Your task to perform on an android device: turn off javascript in the chrome app Image 0: 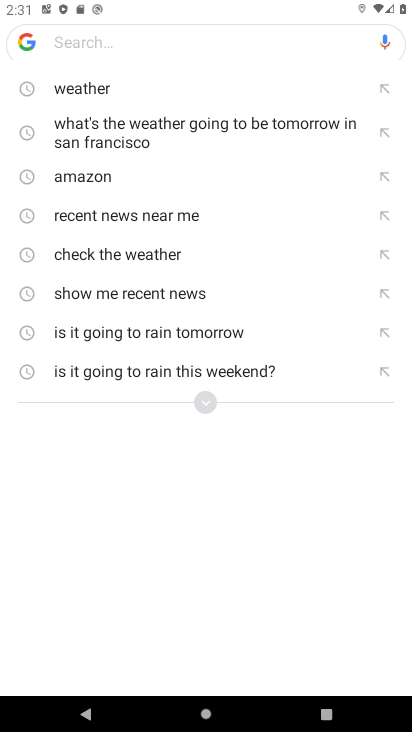
Step 0: press home button
Your task to perform on an android device: turn off javascript in the chrome app Image 1: 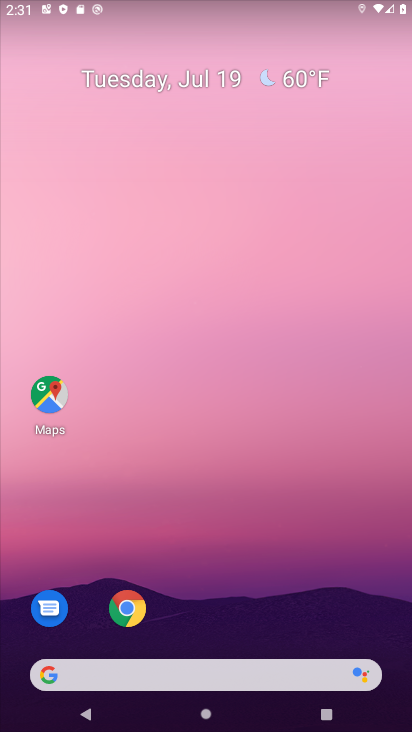
Step 1: drag from (307, 548) to (291, 11)
Your task to perform on an android device: turn off javascript in the chrome app Image 2: 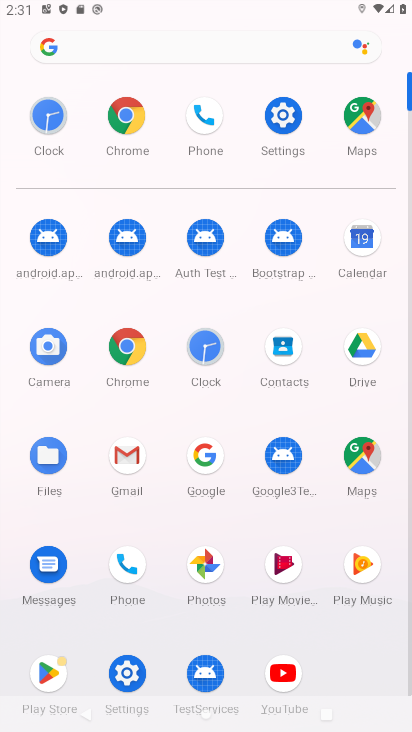
Step 2: click (118, 119)
Your task to perform on an android device: turn off javascript in the chrome app Image 3: 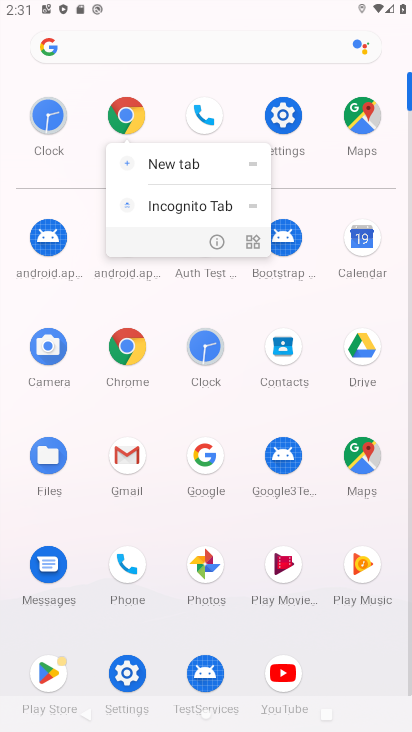
Step 3: click (118, 118)
Your task to perform on an android device: turn off javascript in the chrome app Image 4: 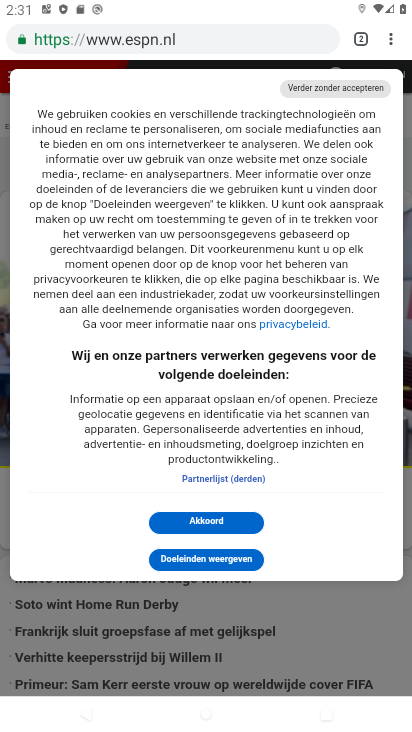
Step 4: drag from (394, 47) to (289, 474)
Your task to perform on an android device: turn off javascript in the chrome app Image 5: 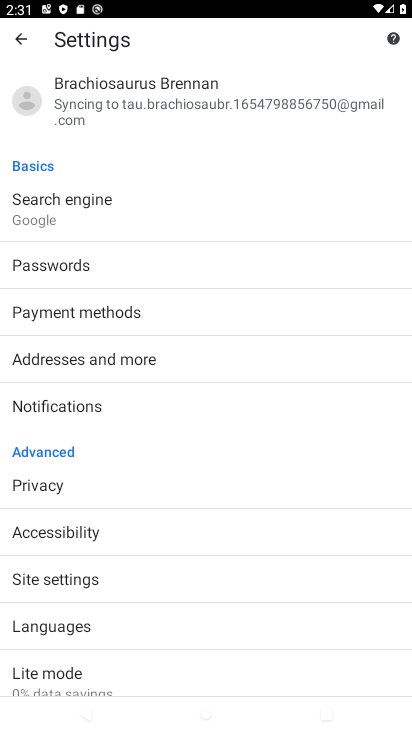
Step 5: click (98, 591)
Your task to perform on an android device: turn off javascript in the chrome app Image 6: 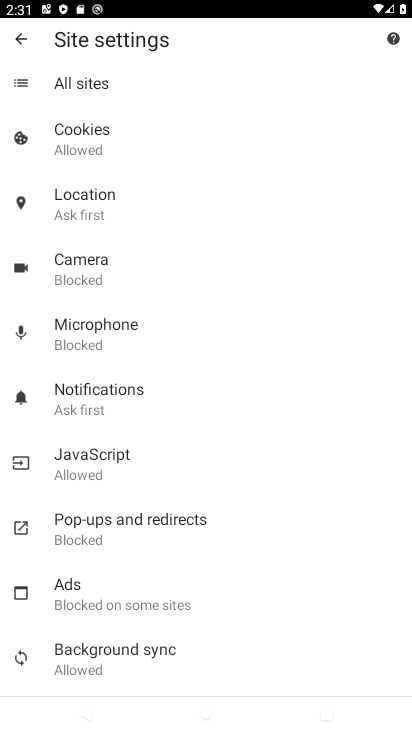
Step 6: click (77, 472)
Your task to perform on an android device: turn off javascript in the chrome app Image 7: 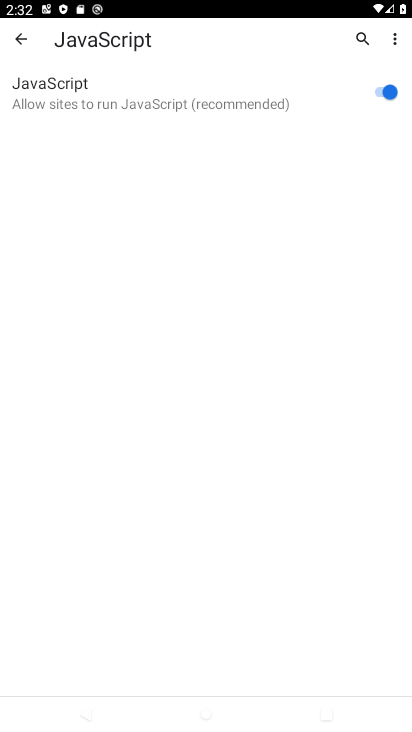
Step 7: click (388, 102)
Your task to perform on an android device: turn off javascript in the chrome app Image 8: 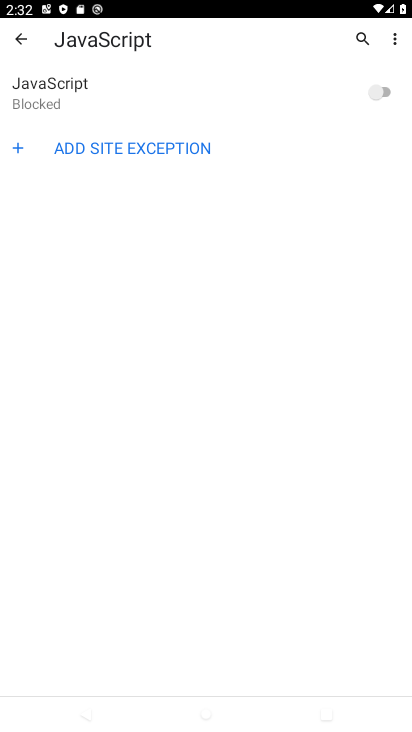
Step 8: task complete